Your task to perform on an android device: turn smart compose on in the gmail app Image 0: 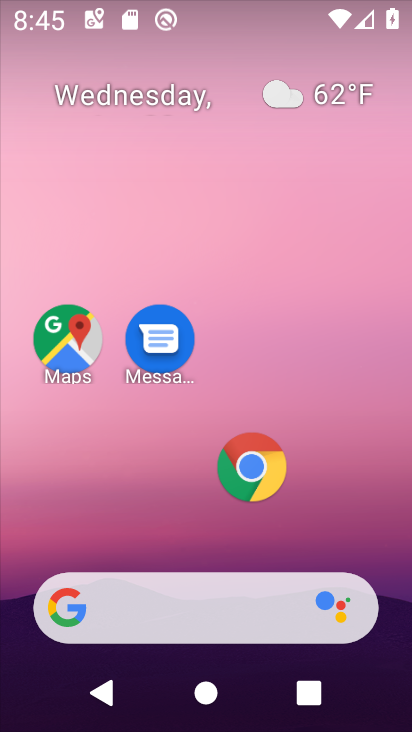
Step 0: drag from (158, 502) to (314, 326)
Your task to perform on an android device: turn smart compose on in the gmail app Image 1: 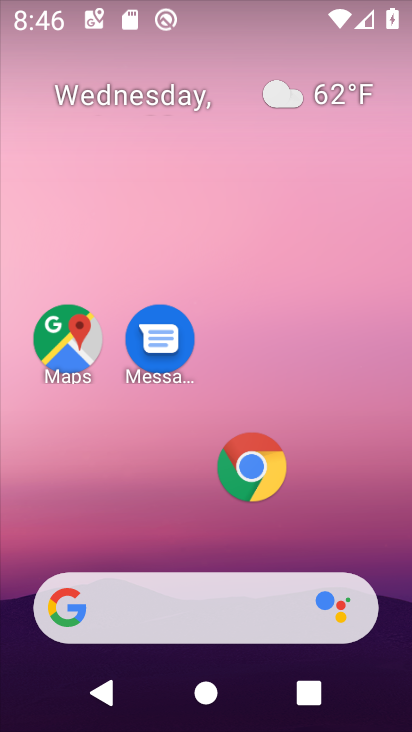
Step 1: drag from (179, 364) to (191, 59)
Your task to perform on an android device: turn smart compose on in the gmail app Image 2: 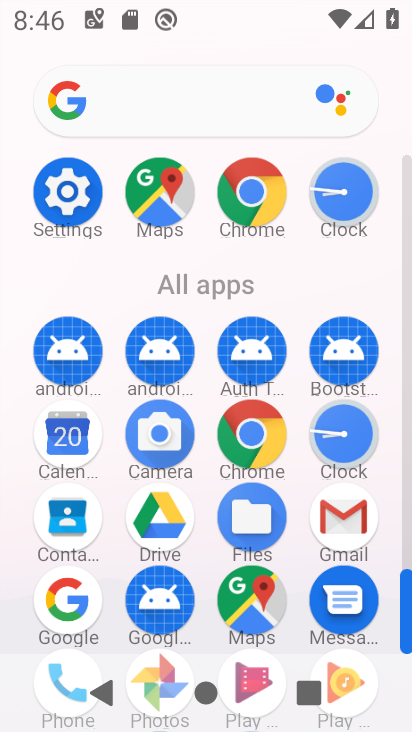
Step 2: click (346, 525)
Your task to perform on an android device: turn smart compose on in the gmail app Image 3: 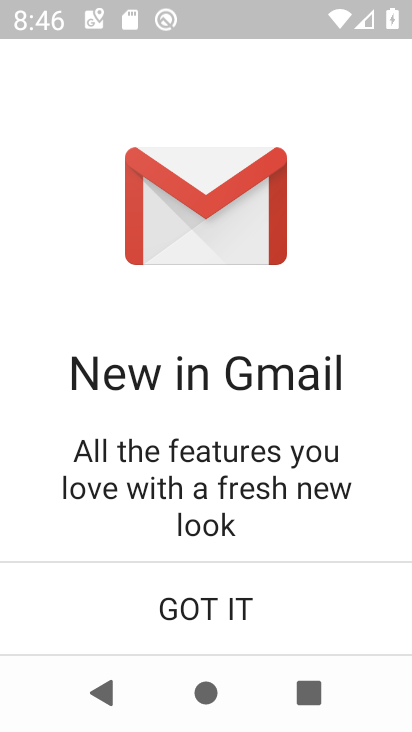
Step 3: click (211, 605)
Your task to perform on an android device: turn smart compose on in the gmail app Image 4: 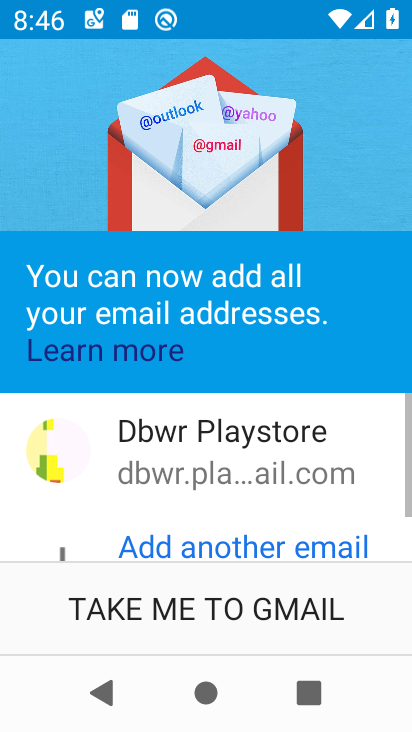
Step 4: click (211, 605)
Your task to perform on an android device: turn smart compose on in the gmail app Image 5: 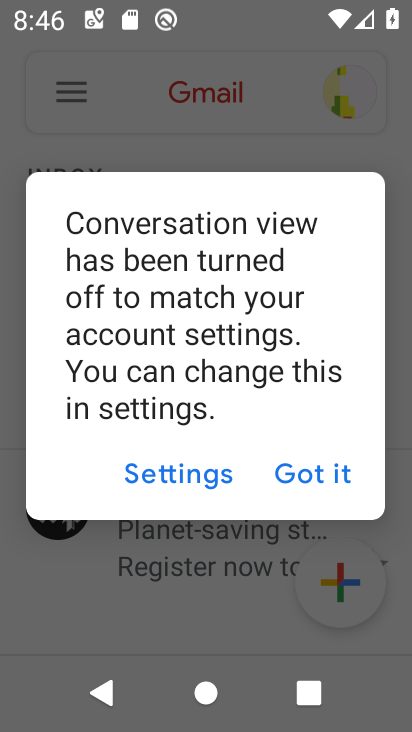
Step 5: click (300, 475)
Your task to perform on an android device: turn smart compose on in the gmail app Image 6: 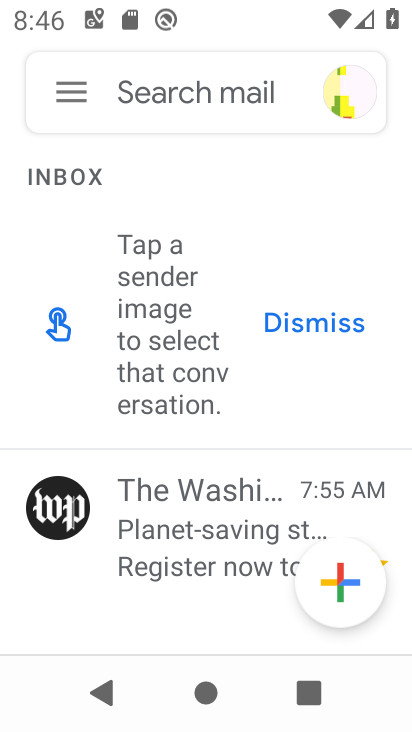
Step 6: click (68, 87)
Your task to perform on an android device: turn smart compose on in the gmail app Image 7: 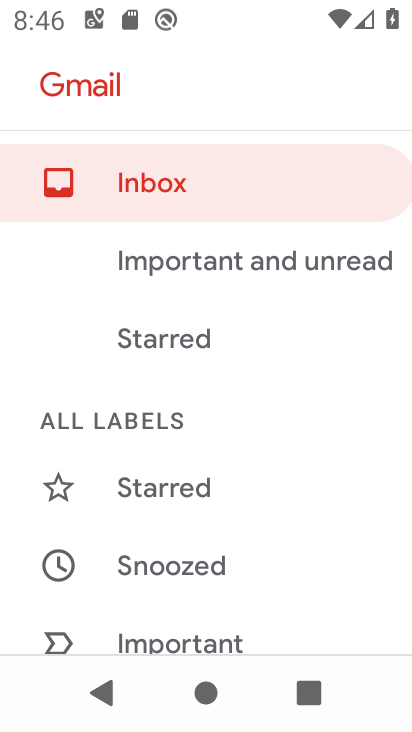
Step 7: drag from (313, 582) to (321, 15)
Your task to perform on an android device: turn smart compose on in the gmail app Image 8: 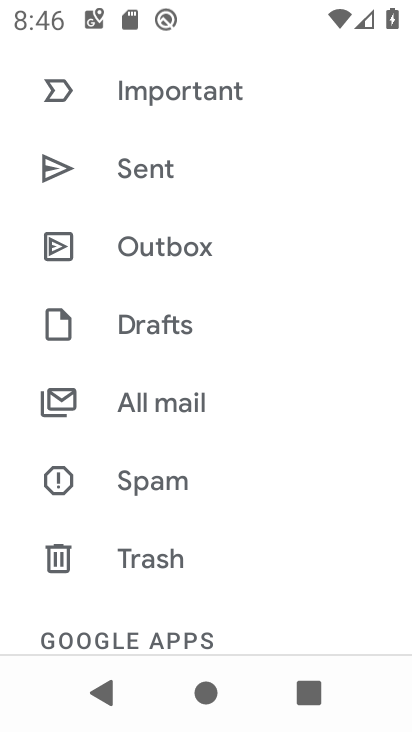
Step 8: drag from (287, 565) to (250, 25)
Your task to perform on an android device: turn smart compose on in the gmail app Image 9: 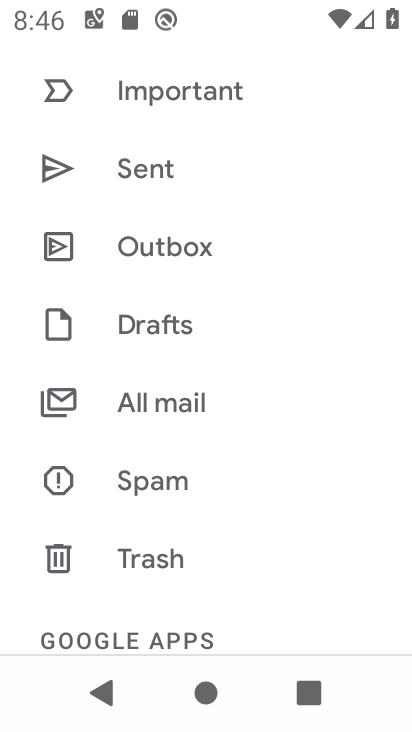
Step 9: drag from (195, 540) to (201, 231)
Your task to perform on an android device: turn smart compose on in the gmail app Image 10: 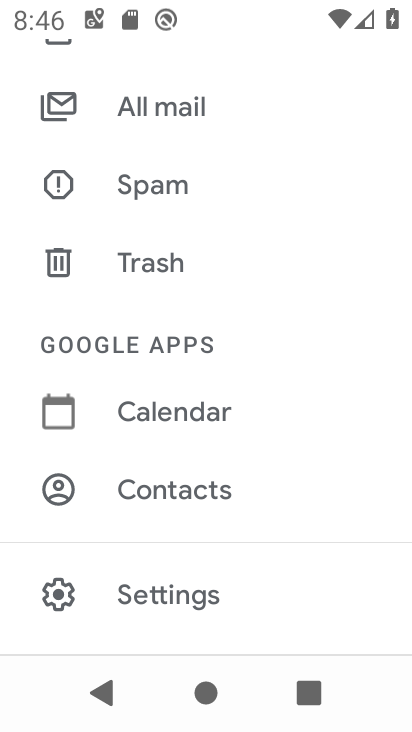
Step 10: drag from (243, 570) to (235, 288)
Your task to perform on an android device: turn smart compose on in the gmail app Image 11: 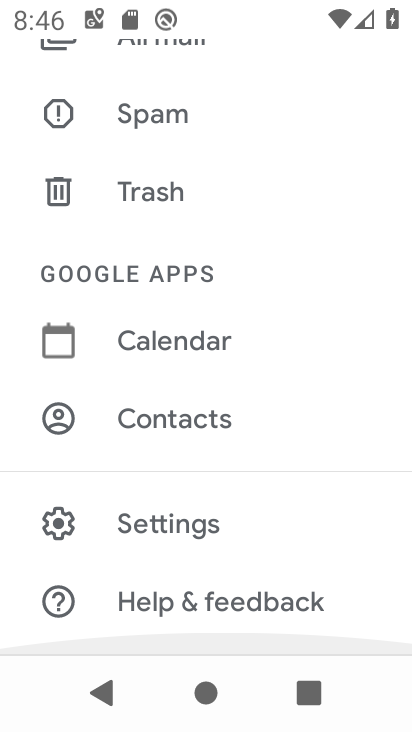
Step 11: click (192, 522)
Your task to perform on an android device: turn smart compose on in the gmail app Image 12: 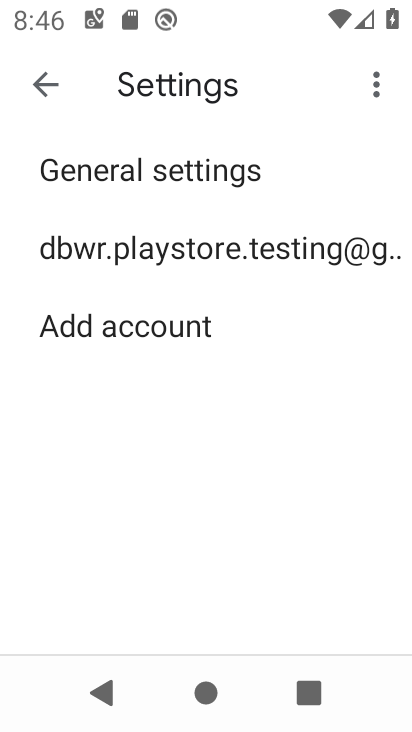
Step 12: click (170, 226)
Your task to perform on an android device: turn smart compose on in the gmail app Image 13: 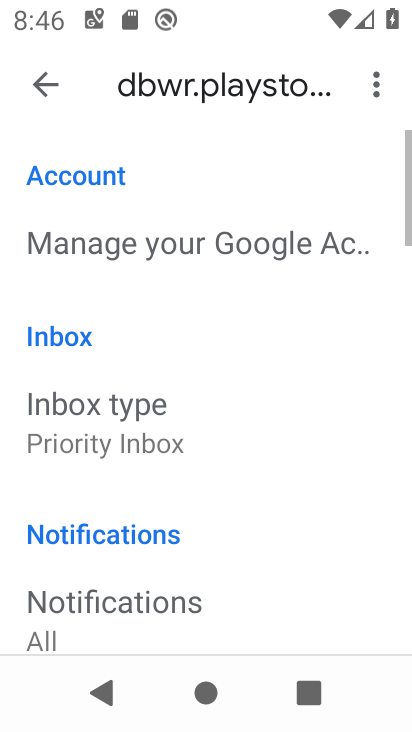
Step 13: task complete